Your task to perform on an android device: Open Amazon Image 0: 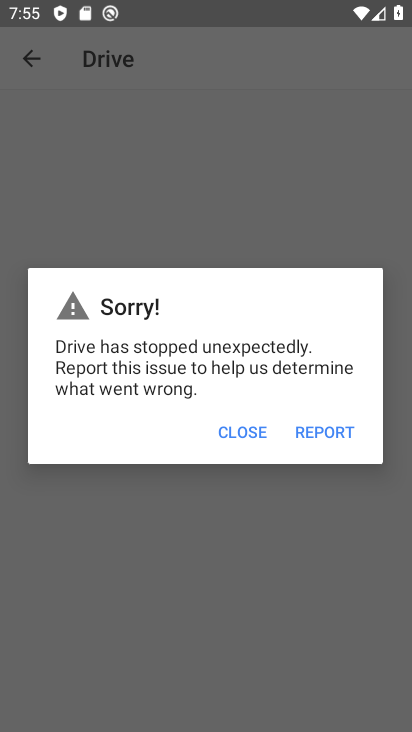
Step 0: press back button
Your task to perform on an android device: Open Amazon Image 1: 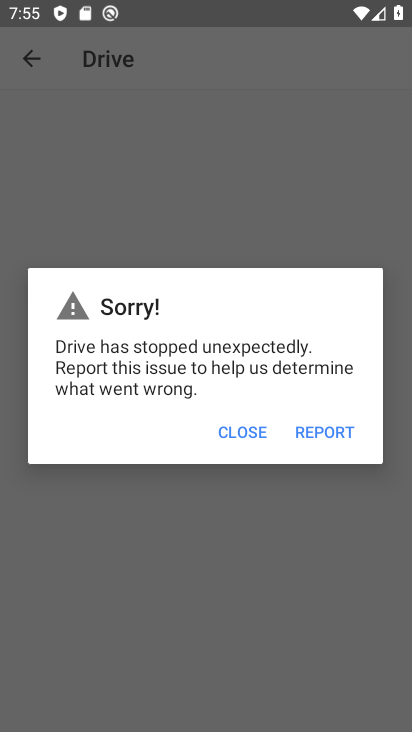
Step 1: press home button
Your task to perform on an android device: Open Amazon Image 2: 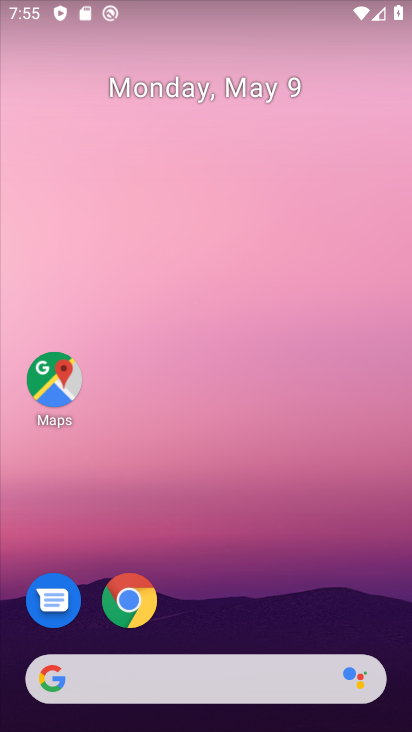
Step 2: drag from (265, 570) to (261, 37)
Your task to perform on an android device: Open Amazon Image 3: 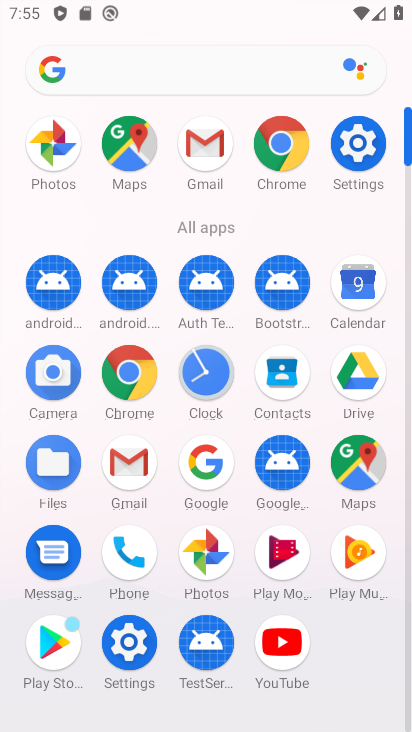
Step 3: click (283, 140)
Your task to perform on an android device: Open Amazon Image 4: 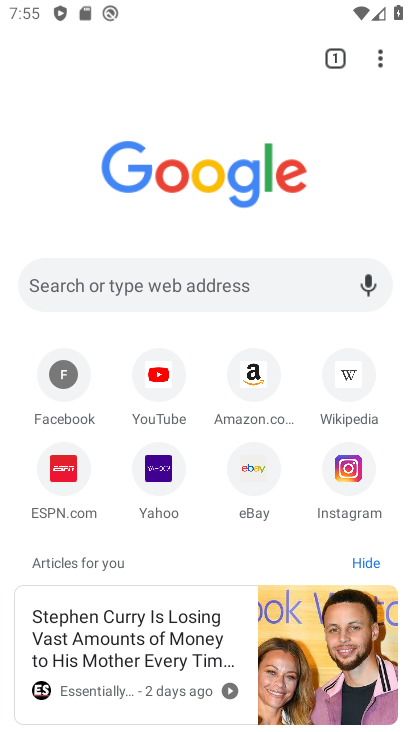
Step 4: click (251, 370)
Your task to perform on an android device: Open Amazon Image 5: 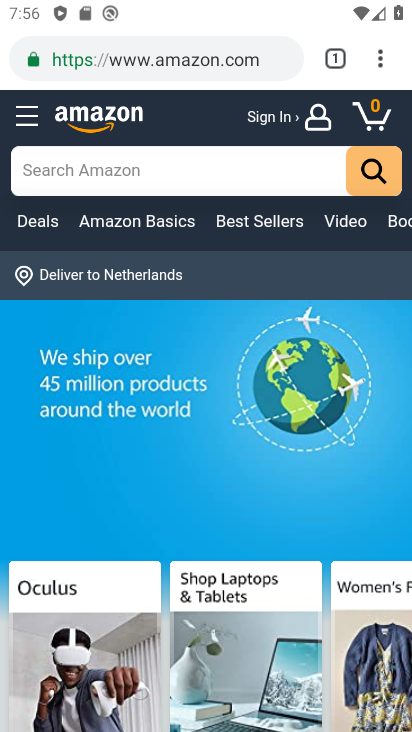
Step 5: task complete